Your task to perform on an android device: open chrome and create a bookmark for the current page Image 0: 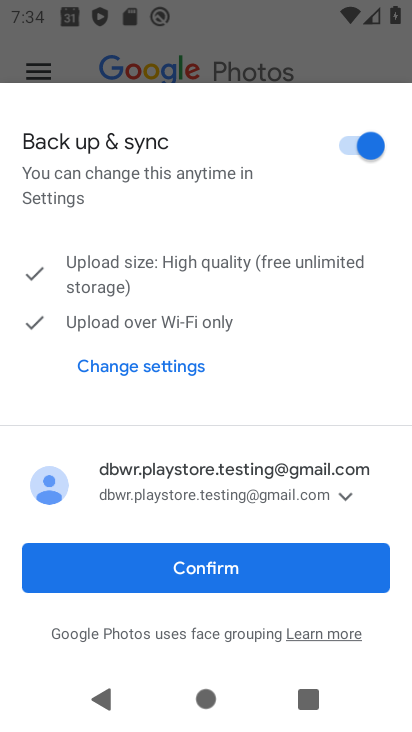
Step 0: click (258, 581)
Your task to perform on an android device: open chrome and create a bookmark for the current page Image 1: 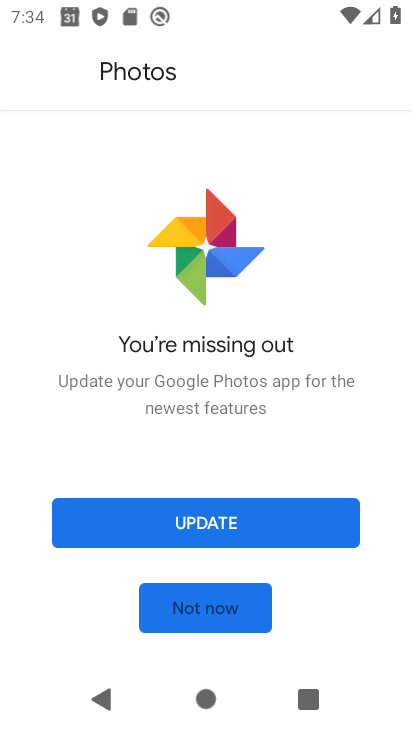
Step 1: click (287, 526)
Your task to perform on an android device: open chrome and create a bookmark for the current page Image 2: 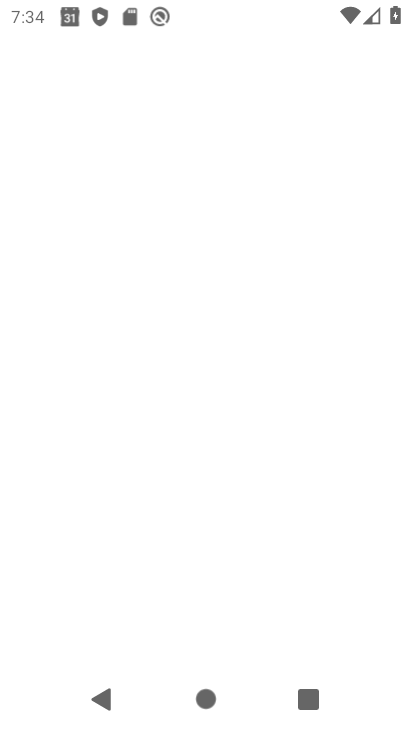
Step 2: press home button
Your task to perform on an android device: open chrome and create a bookmark for the current page Image 3: 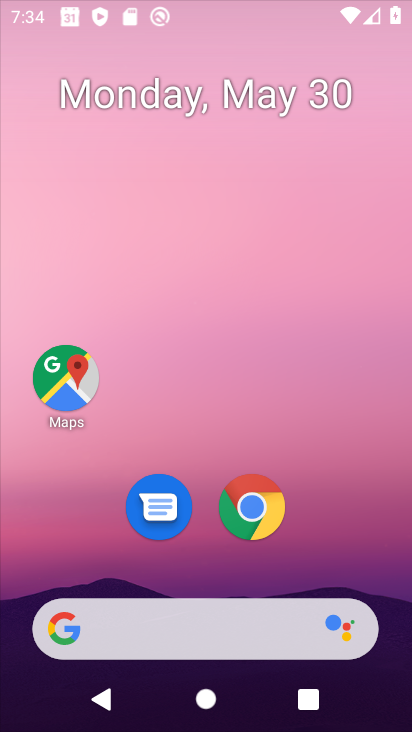
Step 3: drag from (350, 589) to (306, 235)
Your task to perform on an android device: open chrome and create a bookmark for the current page Image 4: 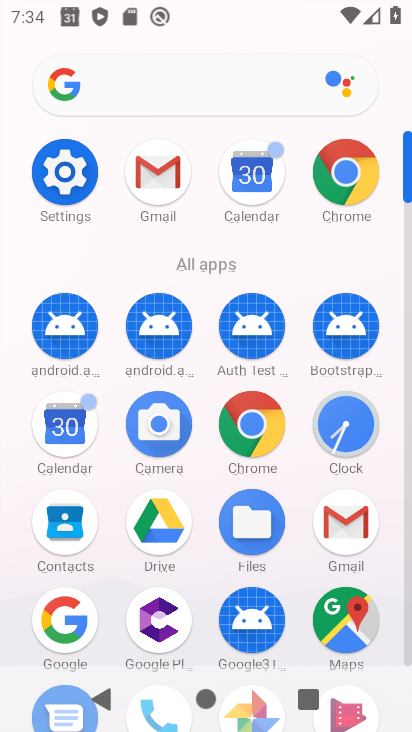
Step 4: click (257, 455)
Your task to perform on an android device: open chrome and create a bookmark for the current page Image 5: 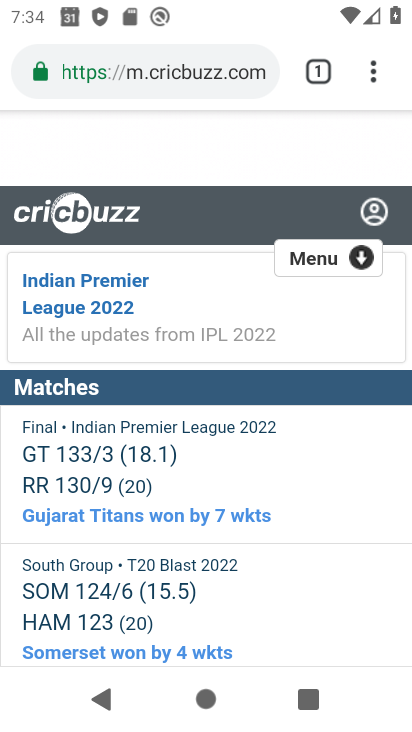
Step 5: click (371, 69)
Your task to perform on an android device: open chrome and create a bookmark for the current page Image 6: 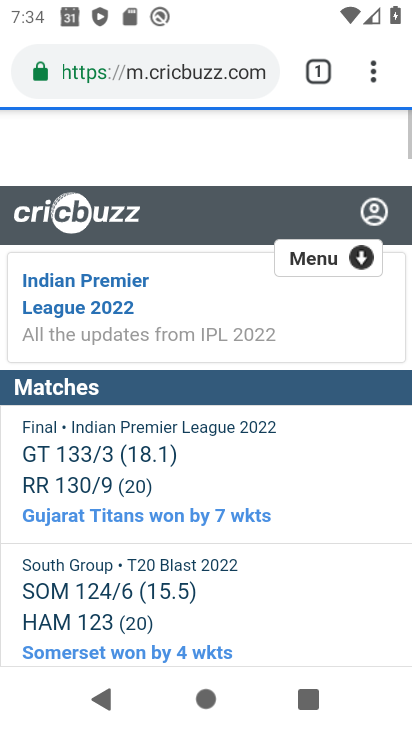
Step 6: task complete